Your task to perform on an android device: Open Chrome and go to settings Image 0: 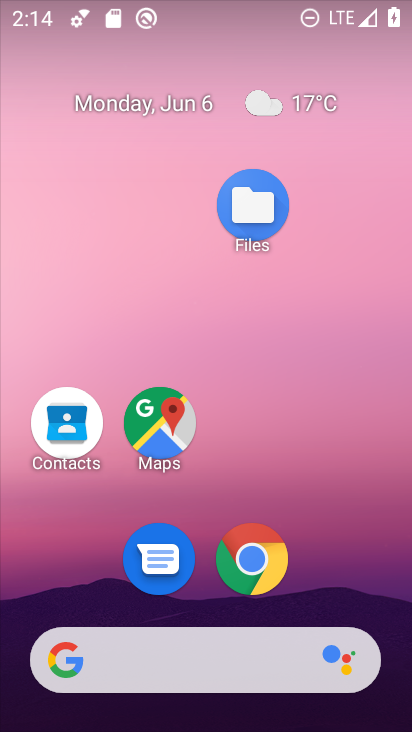
Step 0: drag from (196, 636) to (198, 215)
Your task to perform on an android device: Open Chrome and go to settings Image 1: 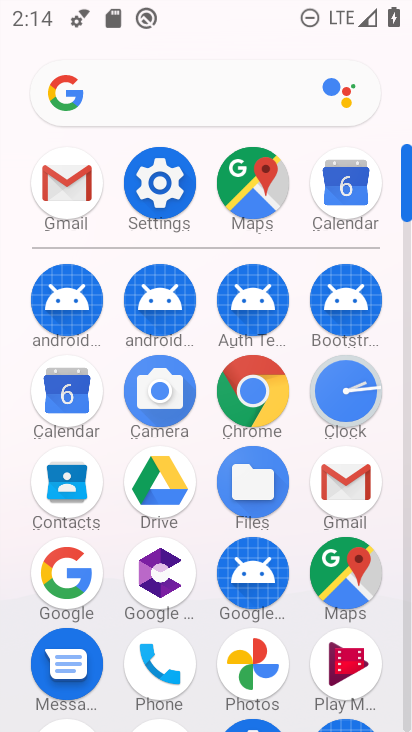
Step 1: click (255, 403)
Your task to perform on an android device: Open Chrome and go to settings Image 2: 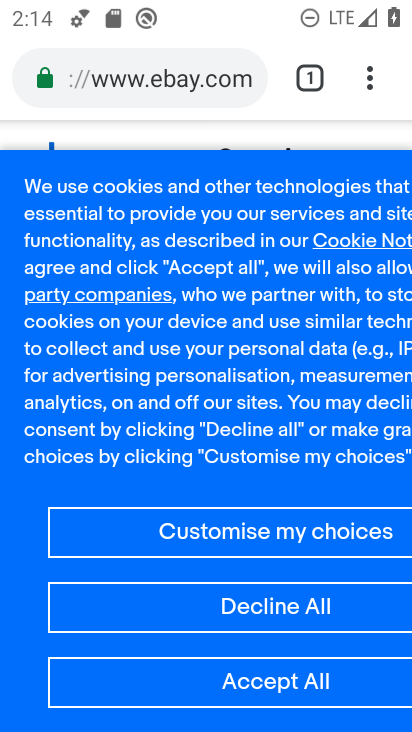
Step 2: click (373, 94)
Your task to perform on an android device: Open Chrome and go to settings Image 3: 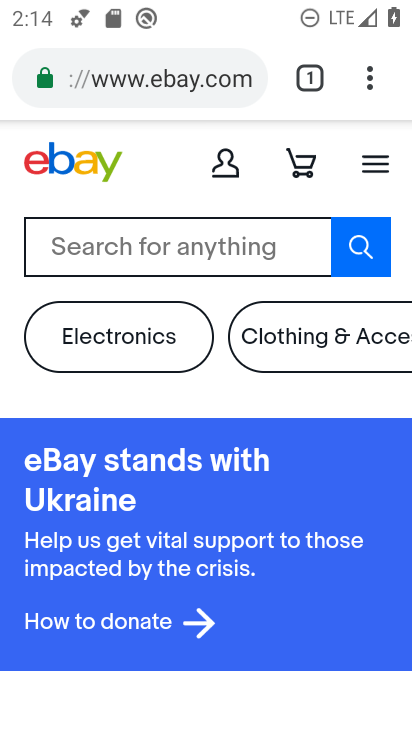
Step 3: click (381, 80)
Your task to perform on an android device: Open Chrome and go to settings Image 4: 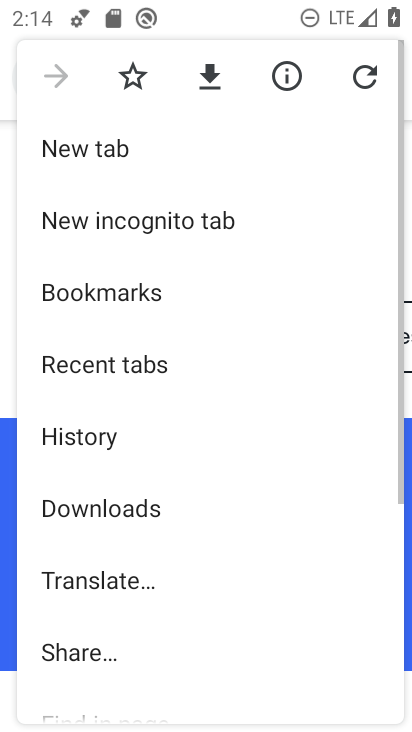
Step 4: drag from (118, 540) to (155, 308)
Your task to perform on an android device: Open Chrome and go to settings Image 5: 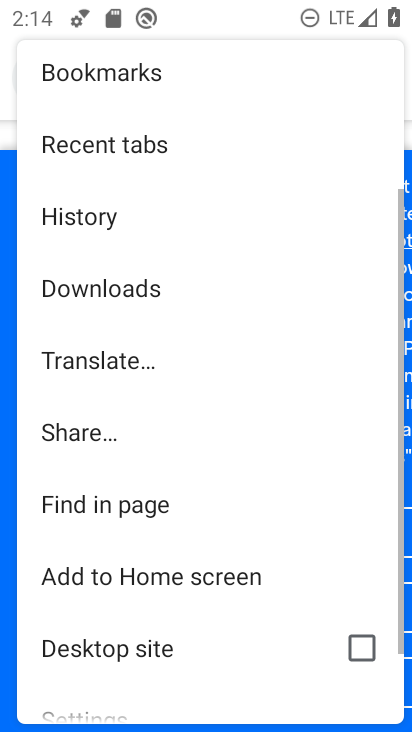
Step 5: drag from (123, 659) to (156, 418)
Your task to perform on an android device: Open Chrome and go to settings Image 6: 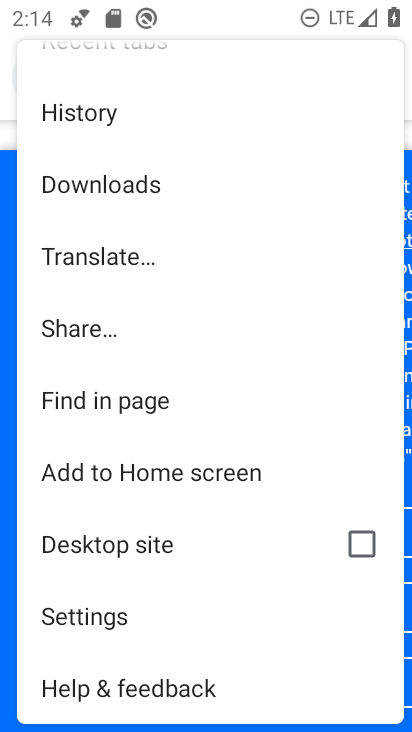
Step 6: drag from (143, 577) to (168, 371)
Your task to perform on an android device: Open Chrome and go to settings Image 7: 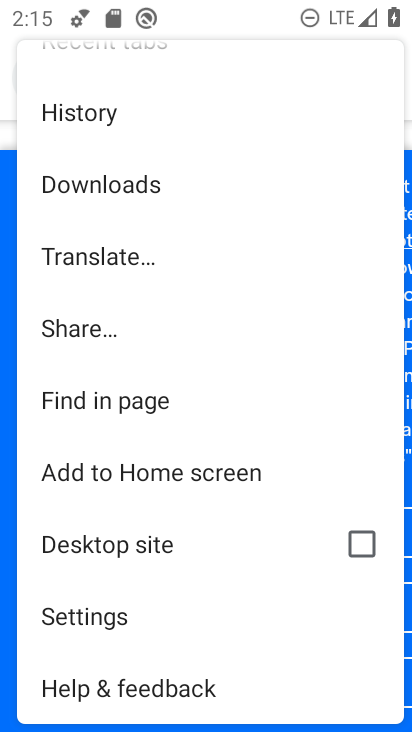
Step 7: click (111, 619)
Your task to perform on an android device: Open Chrome and go to settings Image 8: 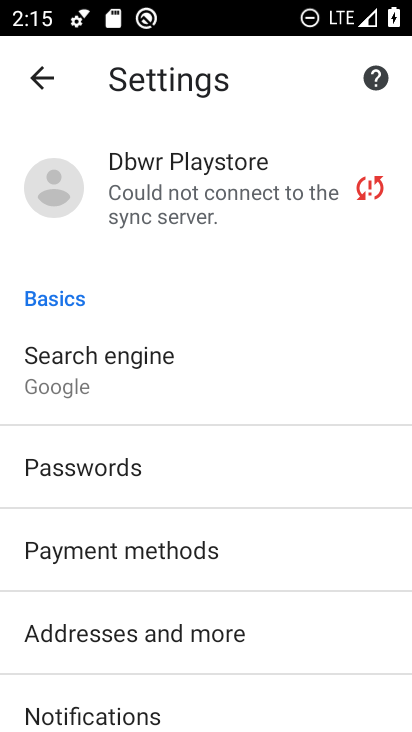
Step 8: task complete